Your task to perform on an android device: Open calendar and show me the fourth week of next month Image 0: 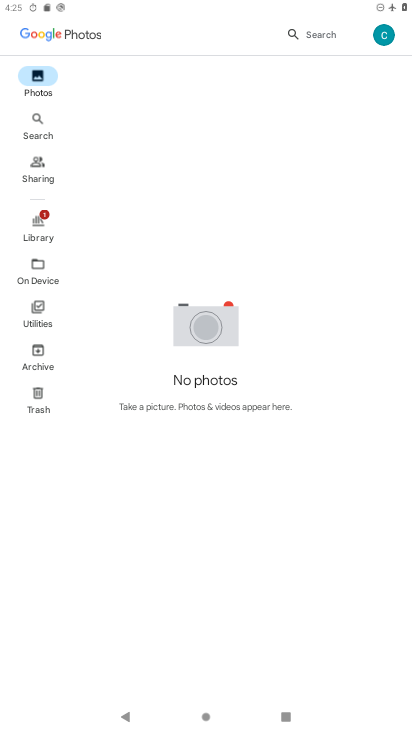
Step 0: press home button
Your task to perform on an android device: Open calendar and show me the fourth week of next month Image 1: 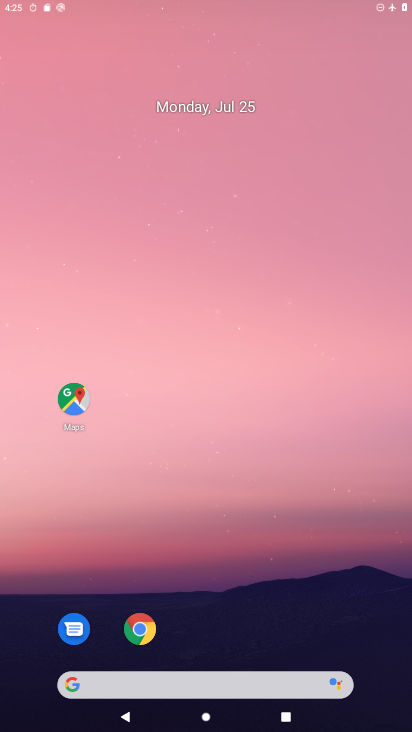
Step 1: drag from (266, 581) to (381, 10)
Your task to perform on an android device: Open calendar and show me the fourth week of next month Image 2: 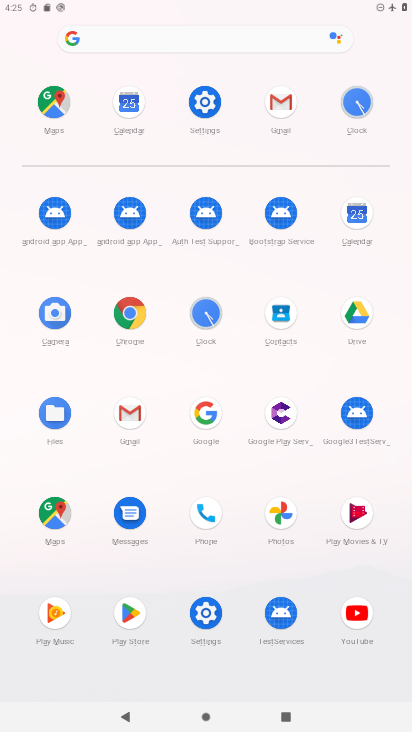
Step 2: click (366, 218)
Your task to perform on an android device: Open calendar and show me the fourth week of next month Image 3: 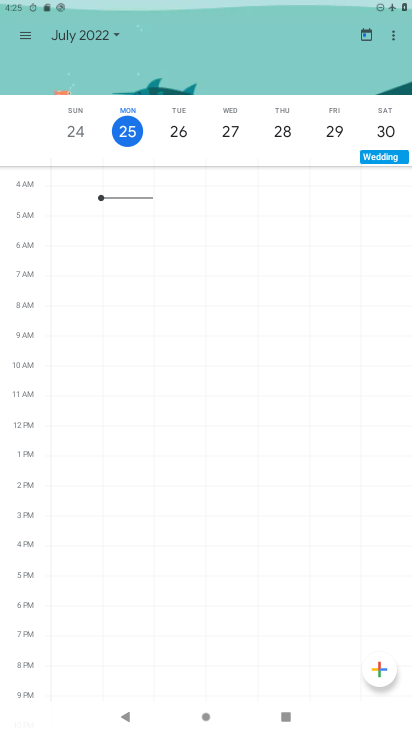
Step 3: click (108, 36)
Your task to perform on an android device: Open calendar and show me the fourth week of next month Image 4: 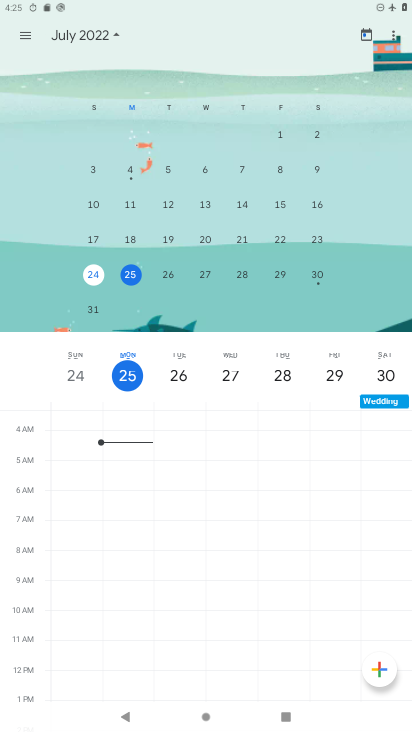
Step 4: drag from (325, 215) to (40, 198)
Your task to perform on an android device: Open calendar and show me the fourth week of next month Image 5: 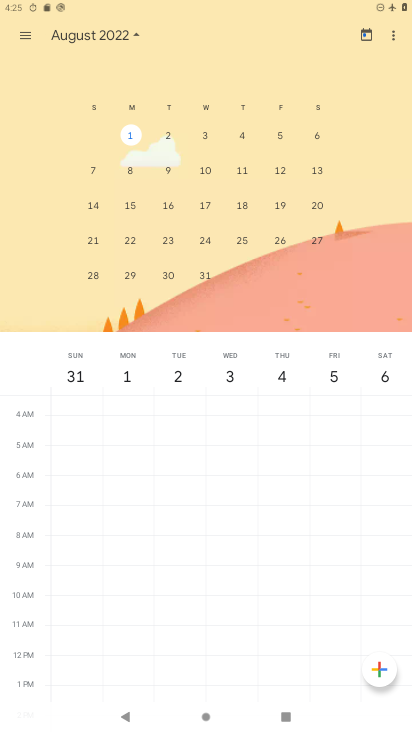
Step 5: click (198, 246)
Your task to perform on an android device: Open calendar and show me the fourth week of next month Image 6: 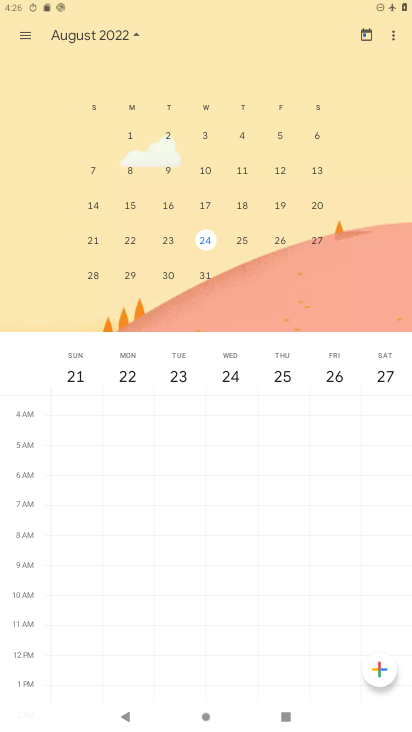
Step 6: task complete